Your task to perform on an android device: stop showing notifications on the lock screen Image 0: 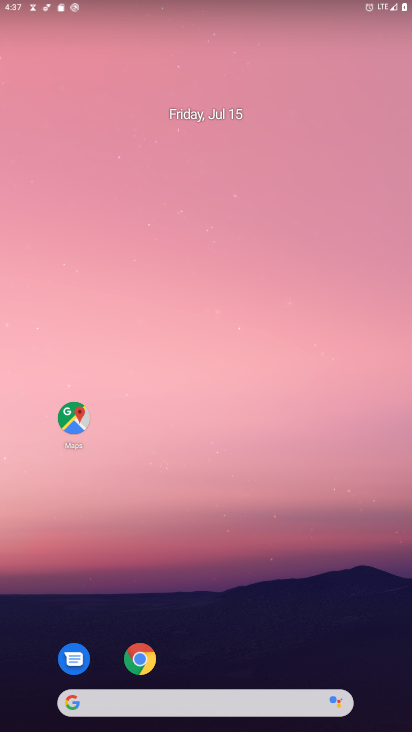
Step 0: drag from (326, 690) to (315, 93)
Your task to perform on an android device: stop showing notifications on the lock screen Image 1: 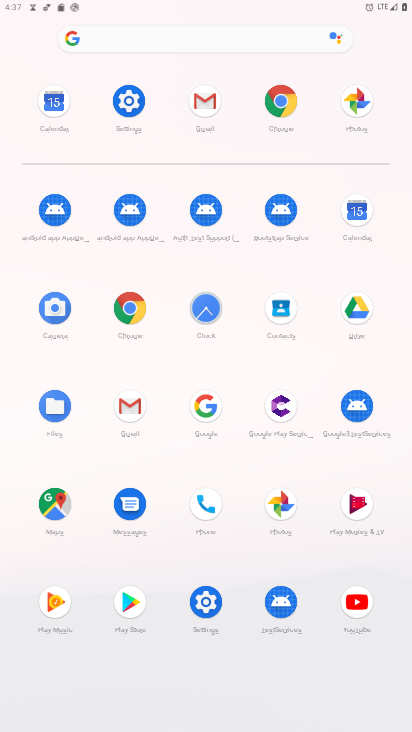
Step 1: click (132, 97)
Your task to perform on an android device: stop showing notifications on the lock screen Image 2: 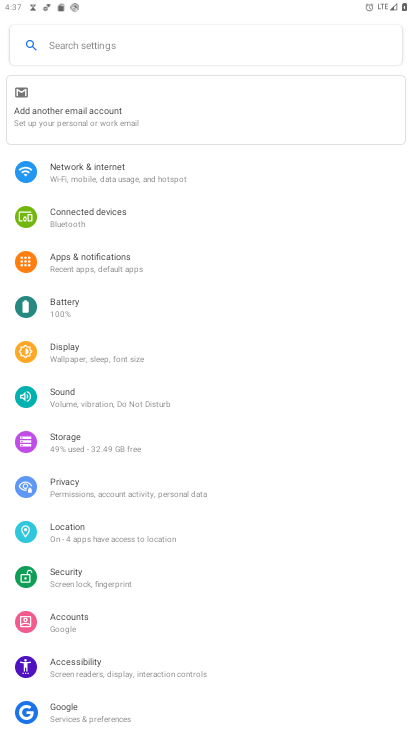
Step 2: click (116, 263)
Your task to perform on an android device: stop showing notifications on the lock screen Image 3: 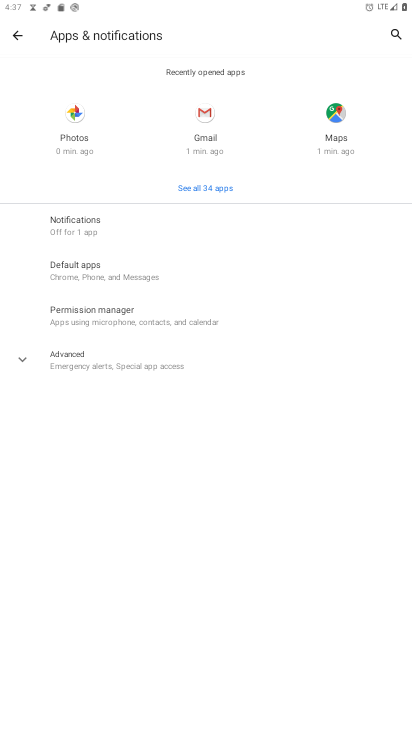
Step 3: click (90, 225)
Your task to perform on an android device: stop showing notifications on the lock screen Image 4: 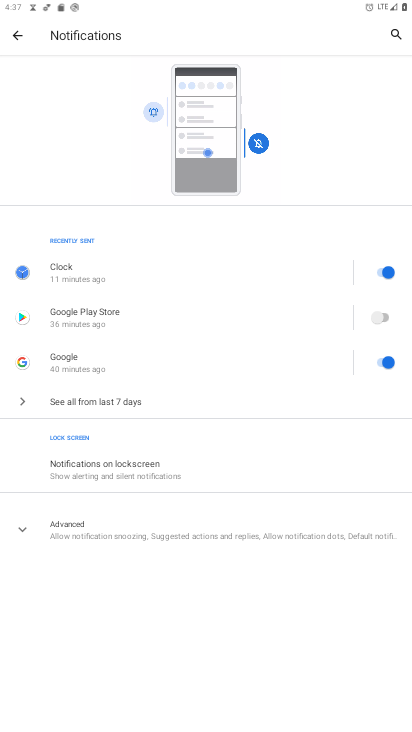
Step 4: click (111, 468)
Your task to perform on an android device: stop showing notifications on the lock screen Image 5: 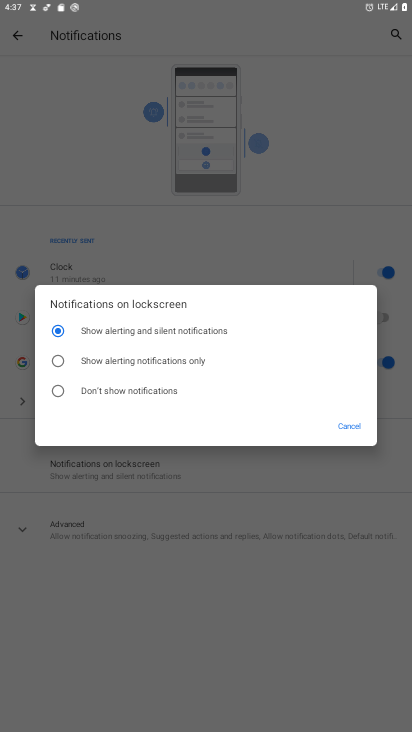
Step 5: click (64, 392)
Your task to perform on an android device: stop showing notifications on the lock screen Image 6: 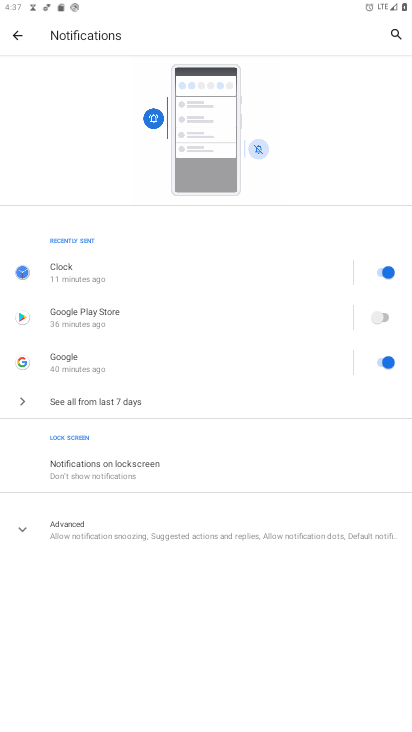
Step 6: task complete